Your task to perform on an android device: check battery use Image 0: 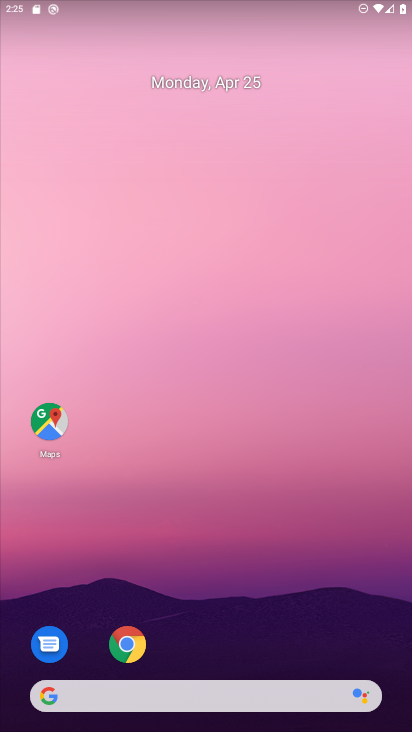
Step 0: drag from (238, 612) to (259, 254)
Your task to perform on an android device: check battery use Image 1: 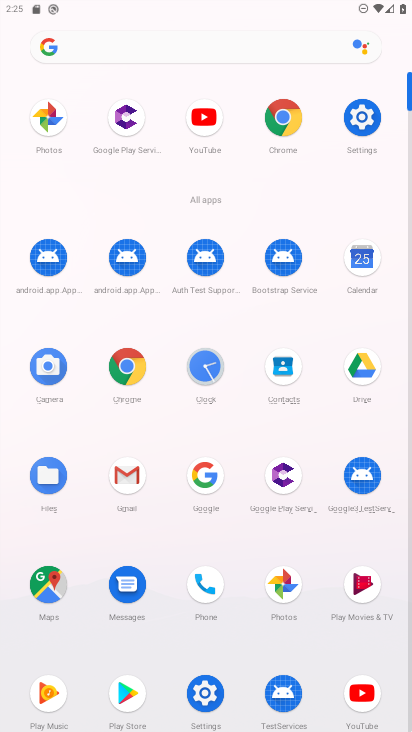
Step 1: click (352, 113)
Your task to perform on an android device: check battery use Image 2: 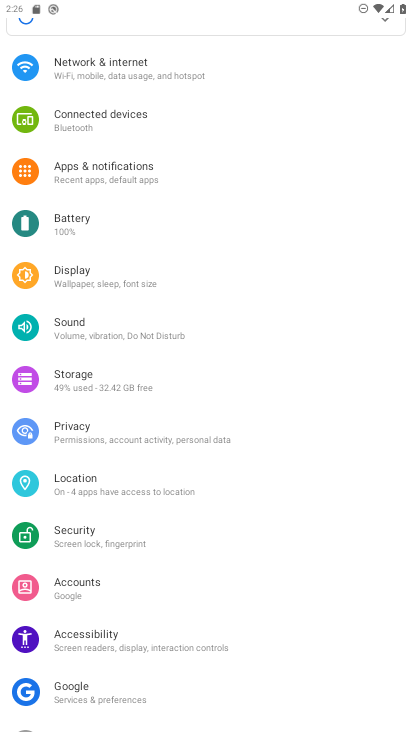
Step 2: click (88, 214)
Your task to perform on an android device: check battery use Image 3: 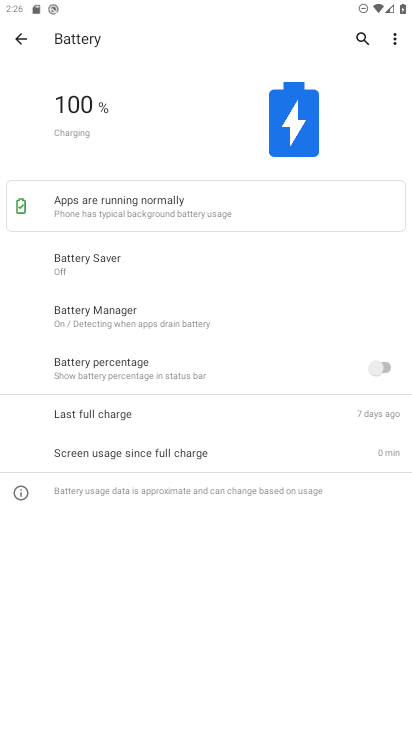
Step 3: click (398, 49)
Your task to perform on an android device: check battery use Image 4: 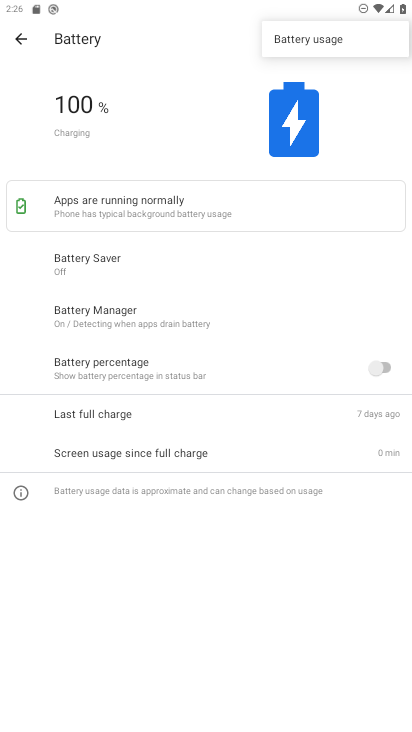
Step 4: click (371, 45)
Your task to perform on an android device: check battery use Image 5: 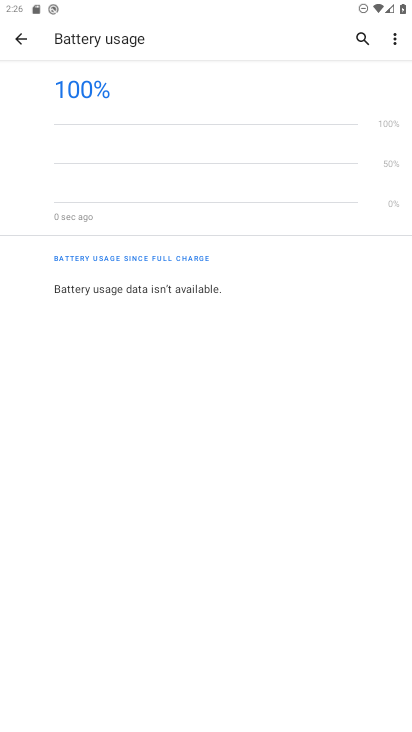
Step 5: task complete